Your task to perform on an android device: show emergency info Image 0: 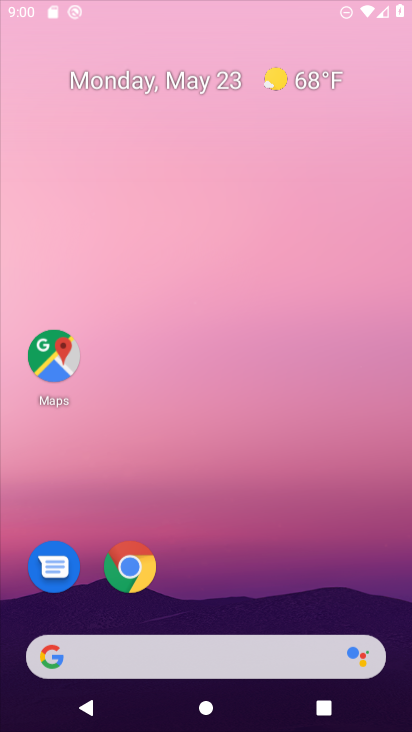
Step 0: click (307, 169)
Your task to perform on an android device: show emergency info Image 1: 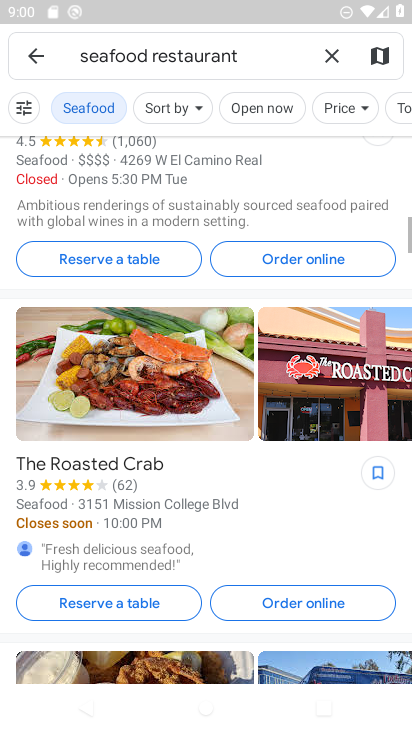
Step 1: drag from (248, 609) to (346, 183)
Your task to perform on an android device: show emergency info Image 2: 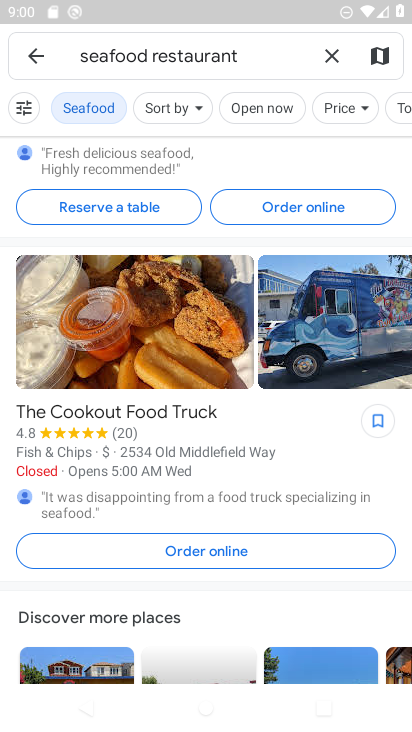
Step 2: drag from (224, 608) to (303, 117)
Your task to perform on an android device: show emergency info Image 3: 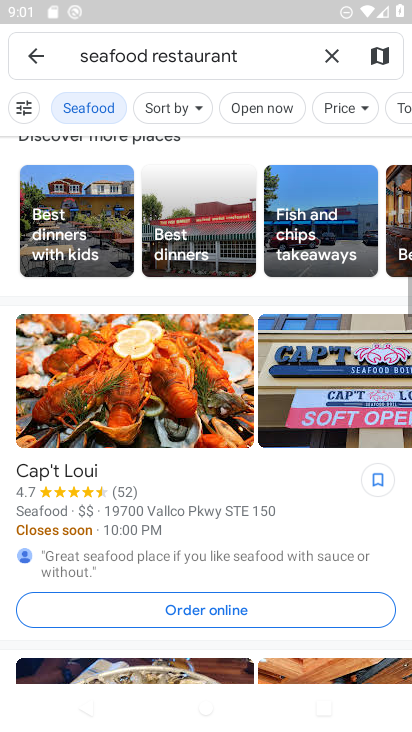
Step 3: press home button
Your task to perform on an android device: show emergency info Image 4: 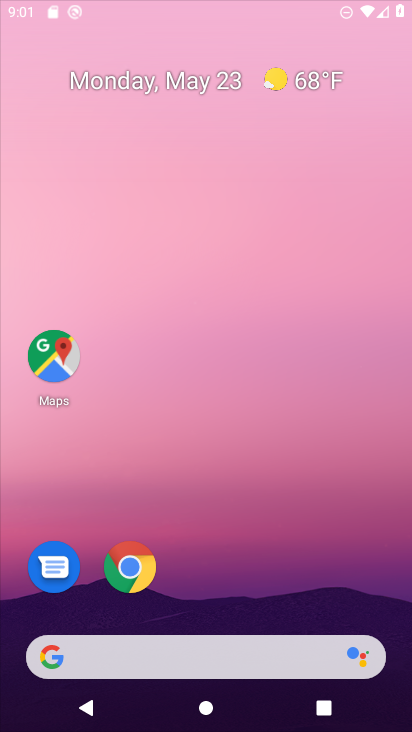
Step 4: drag from (192, 644) to (293, 188)
Your task to perform on an android device: show emergency info Image 5: 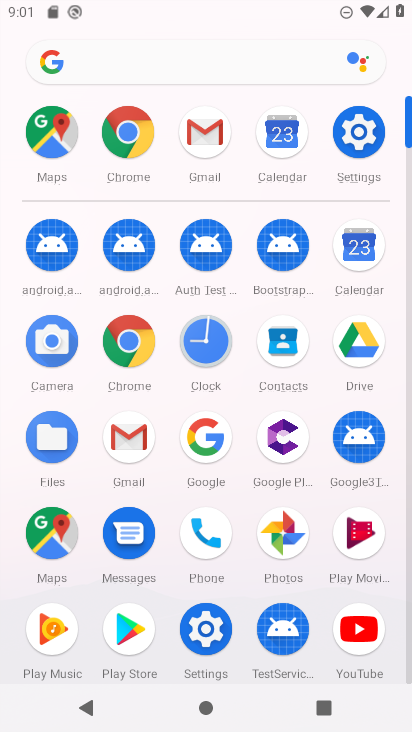
Step 5: click (351, 130)
Your task to perform on an android device: show emergency info Image 6: 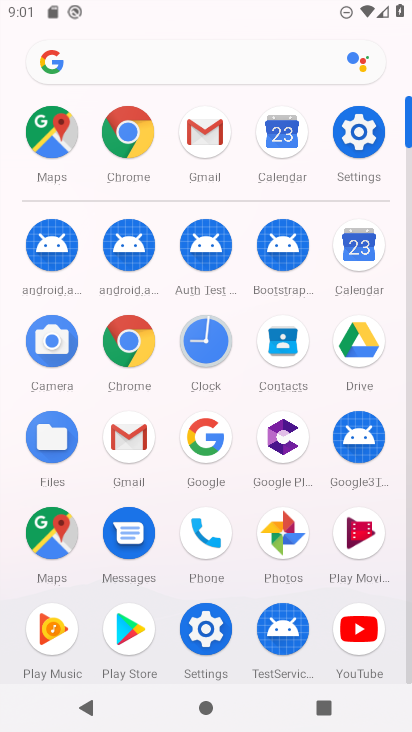
Step 6: click (351, 130)
Your task to perform on an android device: show emergency info Image 7: 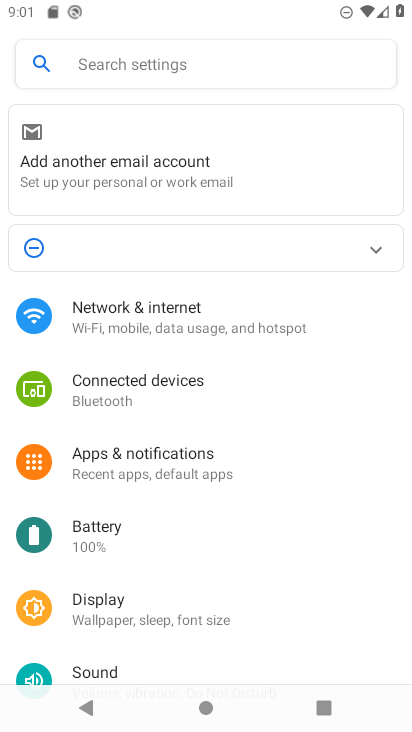
Step 7: drag from (216, 524) to (308, 219)
Your task to perform on an android device: show emergency info Image 8: 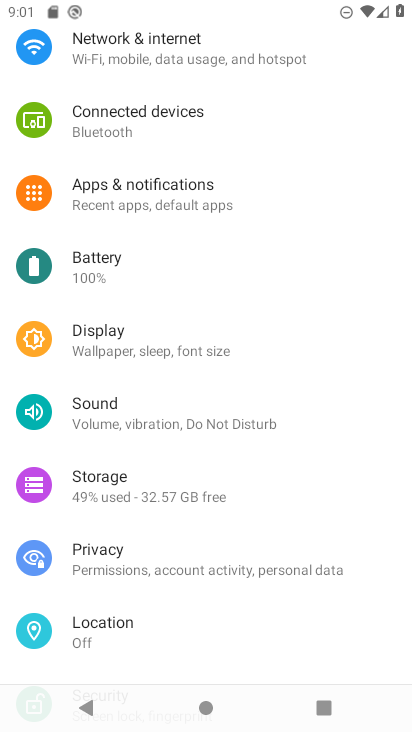
Step 8: drag from (197, 569) to (309, 148)
Your task to perform on an android device: show emergency info Image 9: 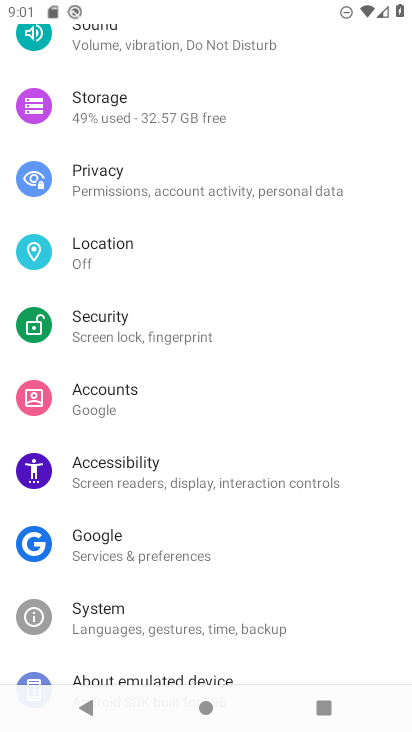
Step 9: click (112, 618)
Your task to perform on an android device: show emergency info Image 10: 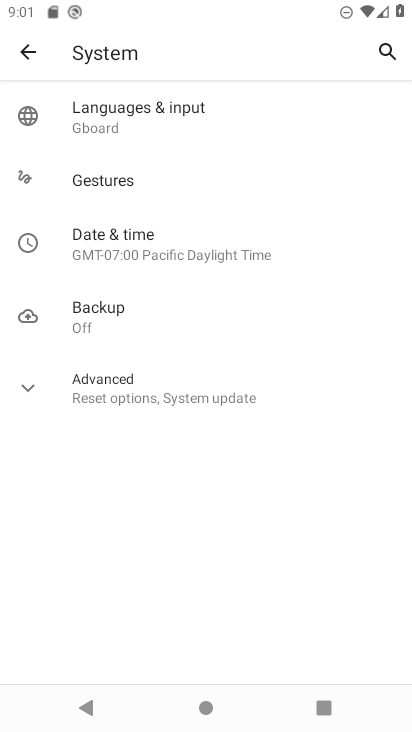
Step 10: click (27, 32)
Your task to perform on an android device: show emergency info Image 11: 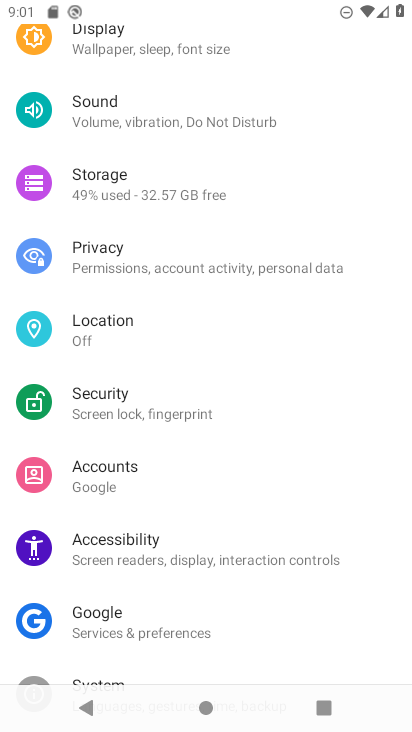
Step 11: drag from (186, 667) to (356, 12)
Your task to perform on an android device: show emergency info Image 12: 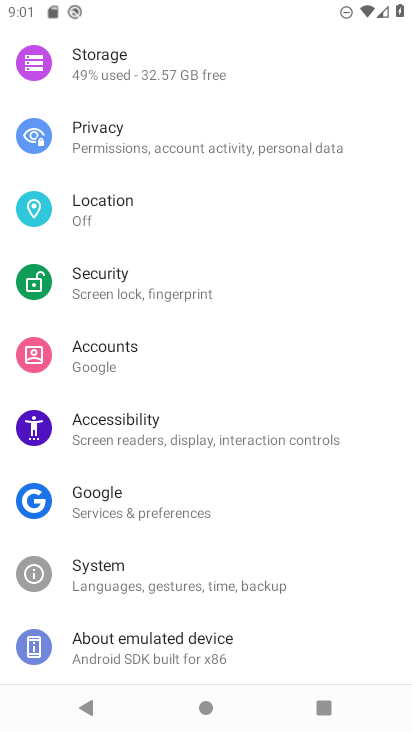
Step 12: click (225, 633)
Your task to perform on an android device: show emergency info Image 13: 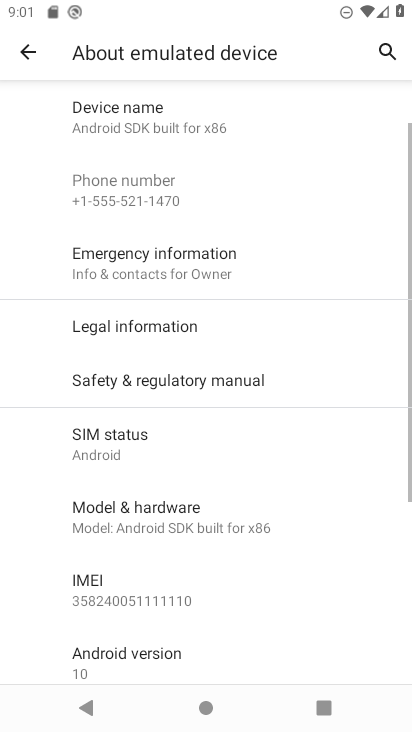
Step 13: drag from (225, 633) to (394, 74)
Your task to perform on an android device: show emergency info Image 14: 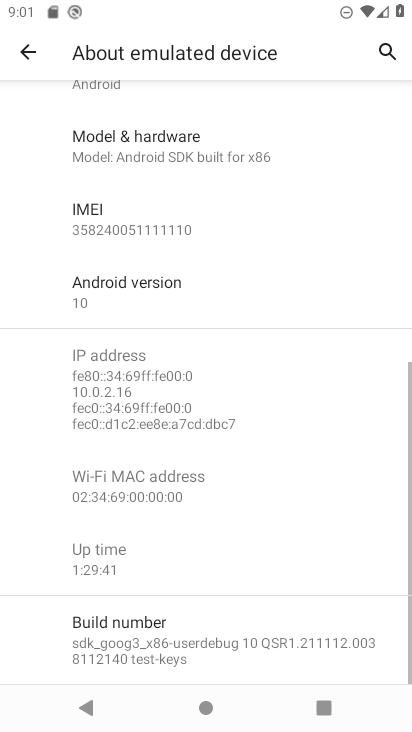
Step 14: drag from (270, 145) to (272, 587)
Your task to perform on an android device: show emergency info Image 15: 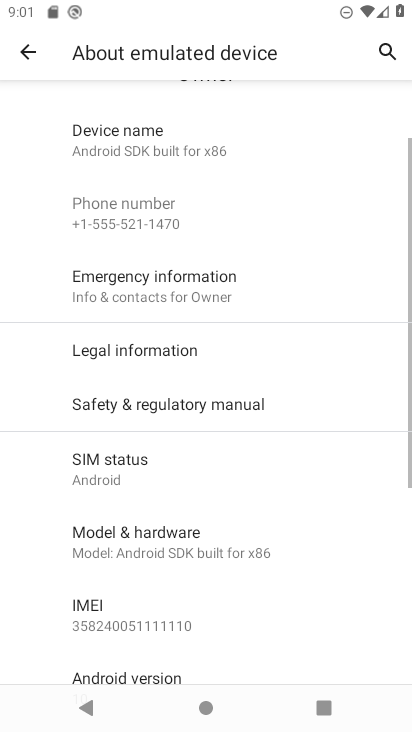
Step 15: click (225, 292)
Your task to perform on an android device: show emergency info Image 16: 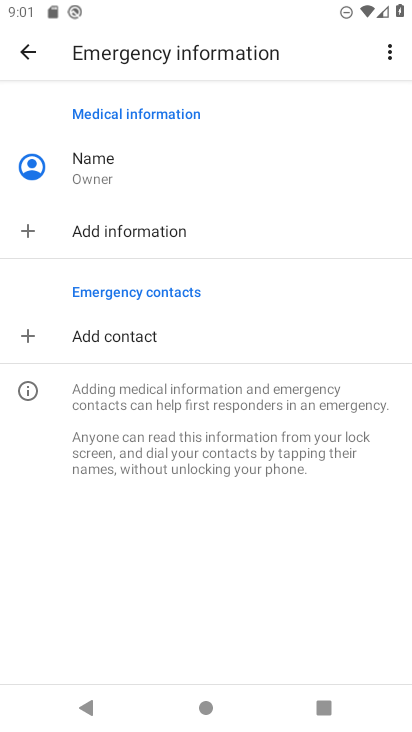
Step 16: task complete